Your task to perform on an android device: turn off wifi Image 0: 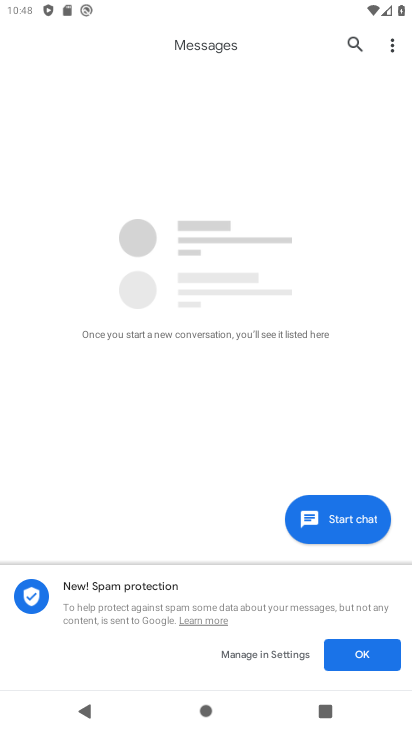
Step 0: press home button
Your task to perform on an android device: turn off wifi Image 1: 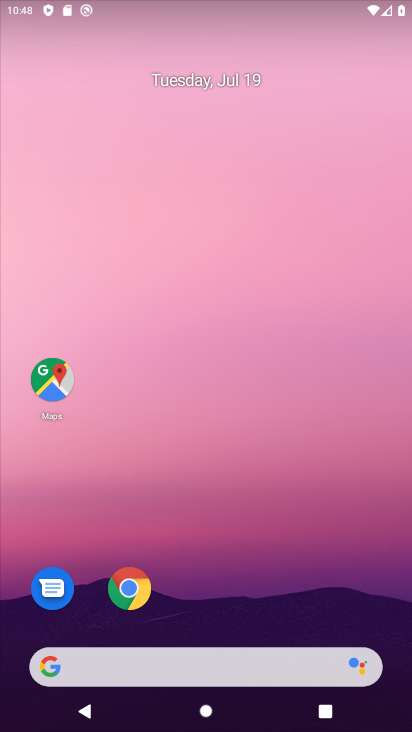
Step 1: drag from (253, 484) to (270, 104)
Your task to perform on an android device: turn off wifi Image 2: 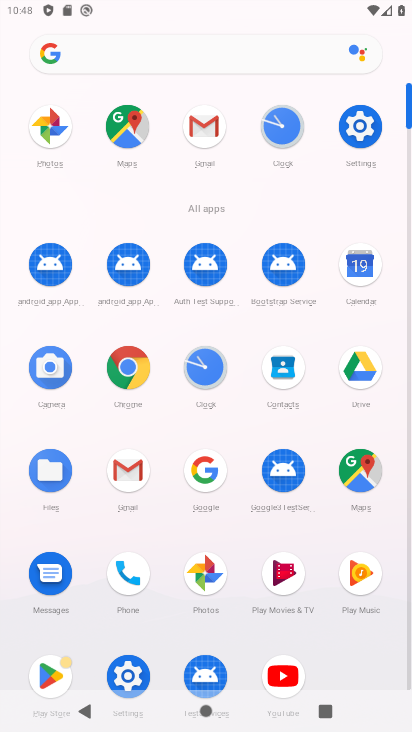
Step 2: click (369, 114)
Your task to perform on an android device: turn off wifi Image 3: 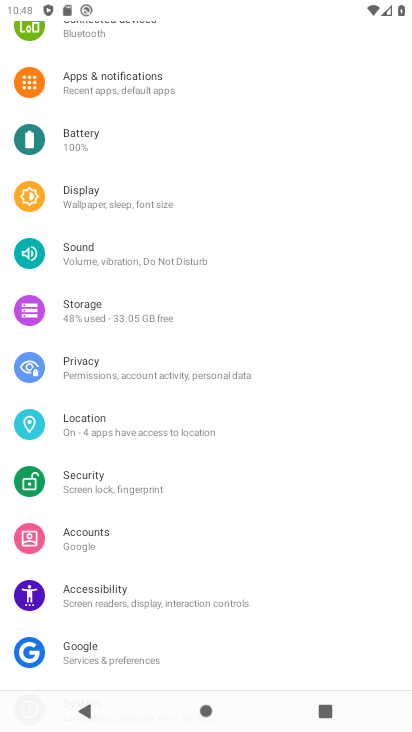
Step 3: drag from (255, 207) to (287, 729)
Your task to perform on an android device: turn off wifi Image 4: 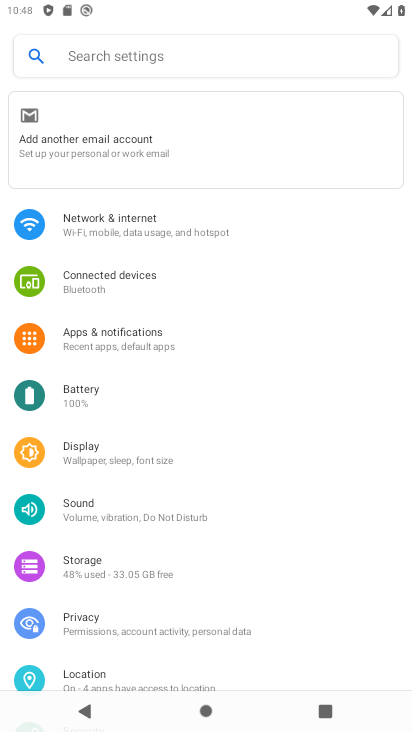
Step 4: click (154, 231)
Your task to perform on an android device: turn off wifi Image 5: 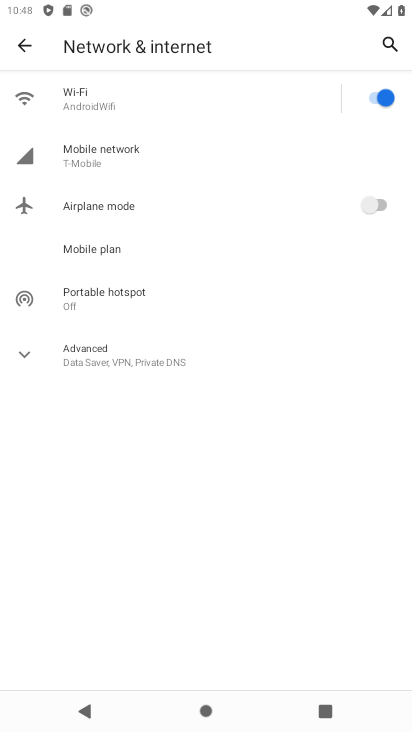
Step 5: click (373, 87)
Your task to perform on an android device: turn off wifi Image 6: 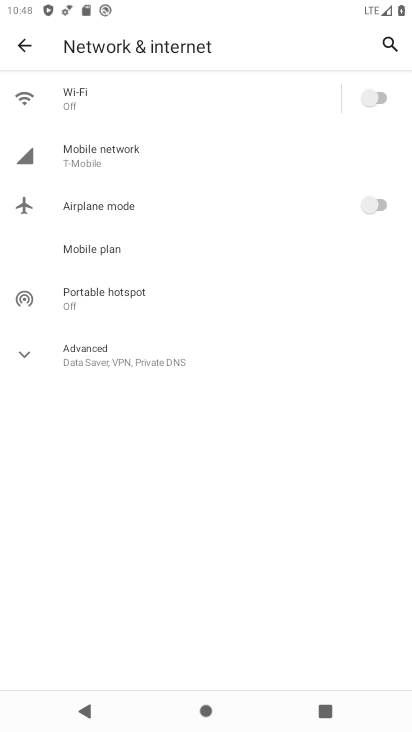
Step 6: task complete